Your task to perform on an android device: set an alarm Image 0: 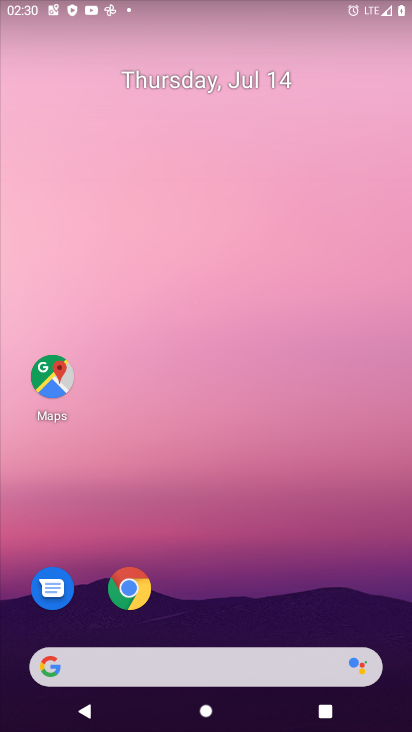
Step 0: click (270, 218)
Your task to perform on an android device: set an alarm Image 1: 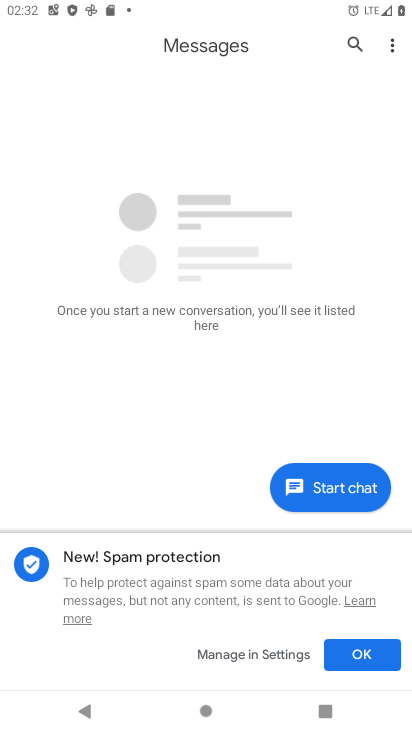
Step 1: press home button
Your task to perform on an android device: set an alarm Image 2: 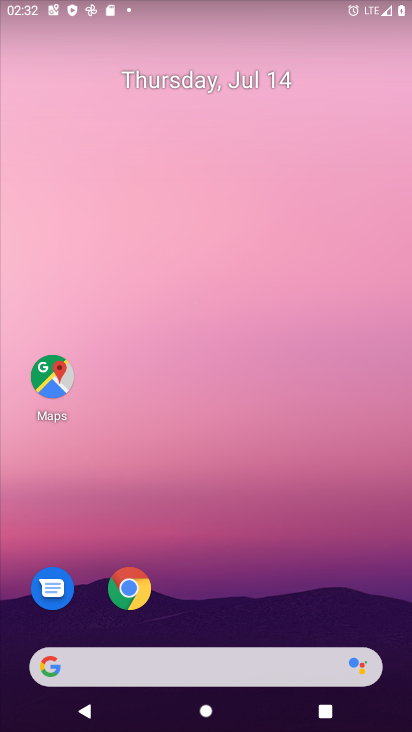
Step 2: drag from (174, 571) to (280, 23)
Your task to perform on an android device: set an alarm Image 3: 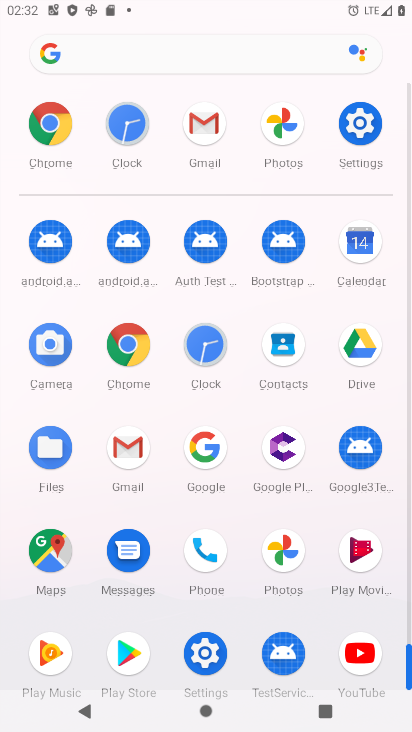
Step 3: click (222, 347)
Your task to perform on an android device: set an alarm Image 4: 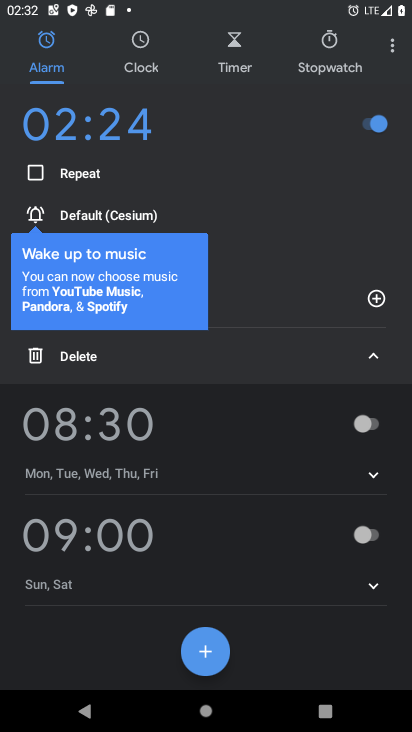
Step 4: click (213, 649)
Your task to perform on an android device: set an alarm Image 5: 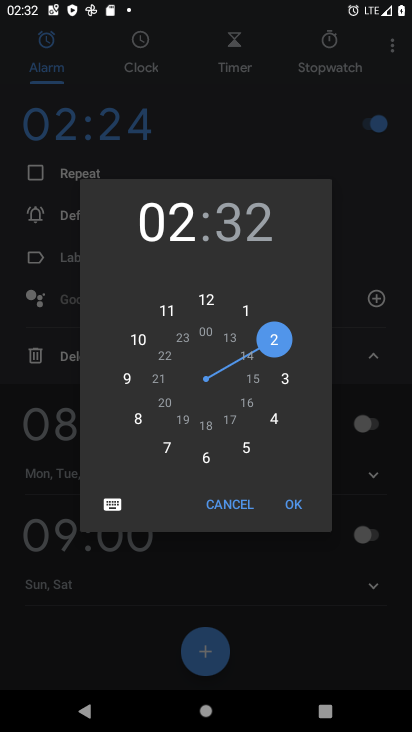
Step 5: click (303, 505)
Your task to perform on an android device: set an alarm Image 6: 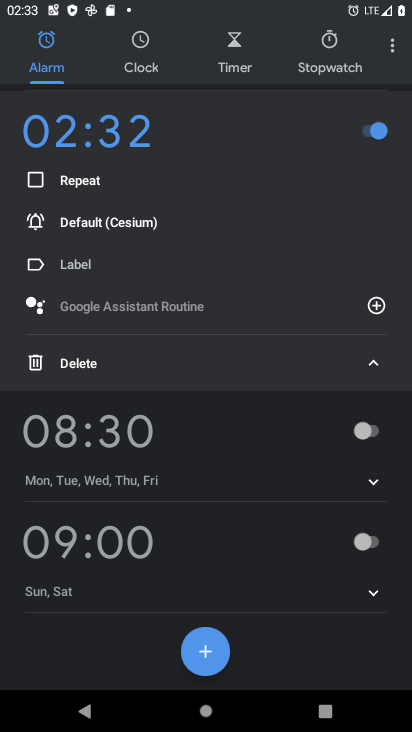
Step 6: task complete